Your task to perform on an android device: snooze an email in the gmail app Image 0: 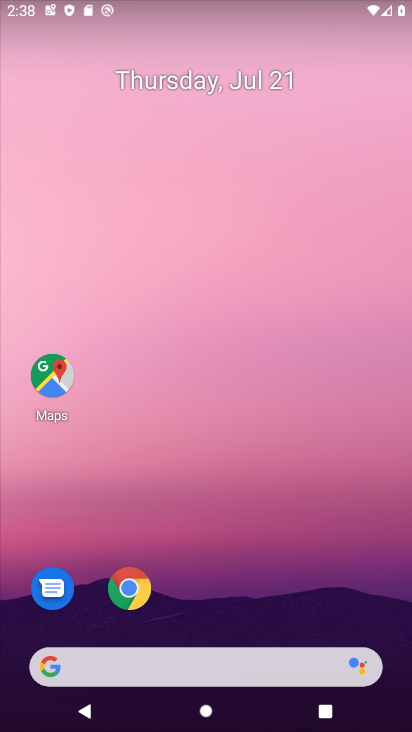
Step 0: drag from (237, 578) to (223, 177)
Your task to perform on an android device: snooze an email in the gmail app Image 1: 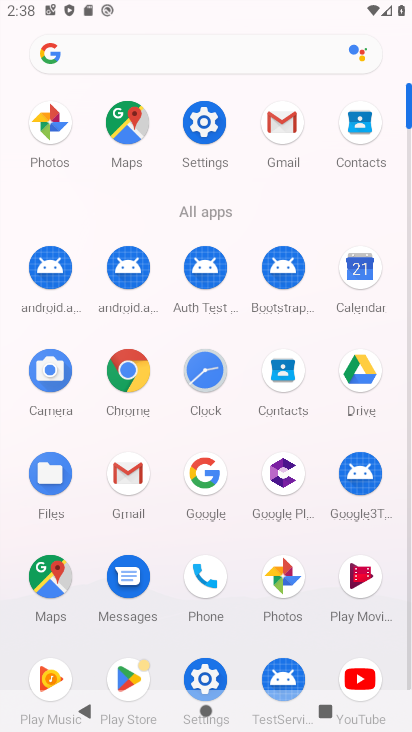
Step 1: click (271, 134)
Your task to perform on an android device: snooze an email in the gmail app Image 2: 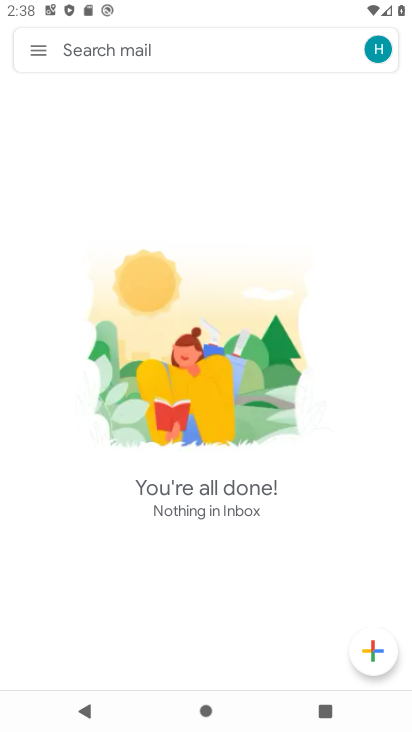
Step 2: click (39, 51)
Your task to perform on an android device: snooze an email in the gmail app Image 3: 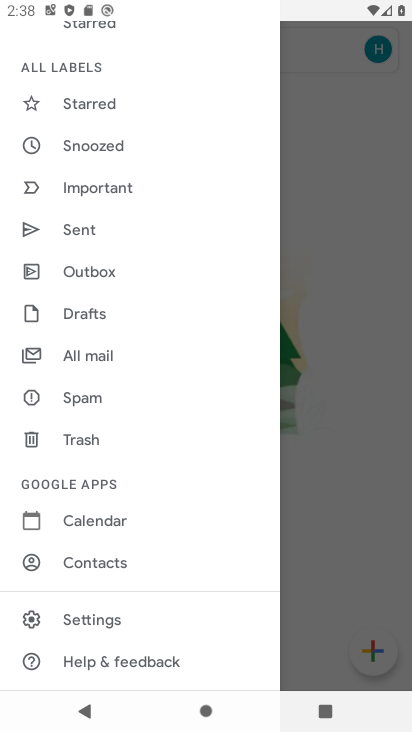
Step 3: click (93, 348)
Your task to perform on an android device: snooze an email in the gmail app Image 4: 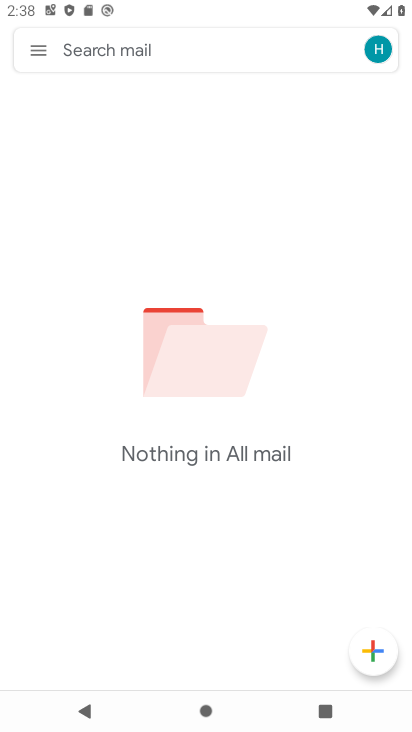
Step 4: task complete